Your task to perform on an android device: Search for vegetarian restaurants on Maps Image 0: 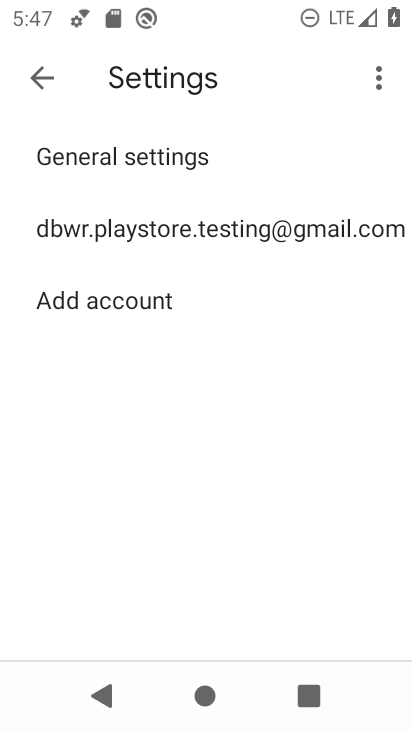
Step 0: click (245, 494)
Your task to perform on an android device: Search for vegetarian restaurants on Maps Image 1: 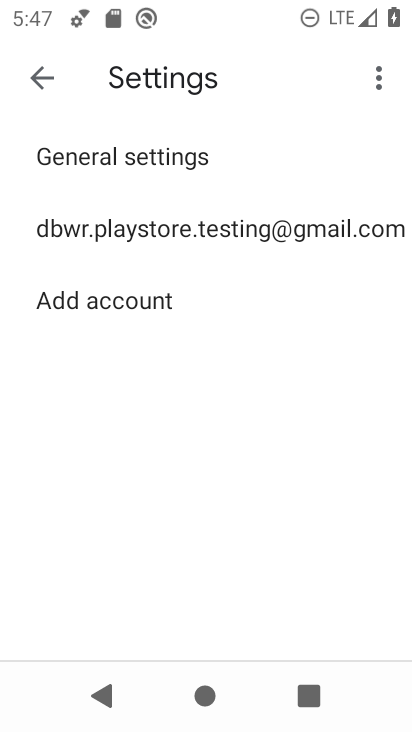
Step 1: press home button
Your task to perform on an android device: Search for vegetarian restaurants on Maps Image 2: 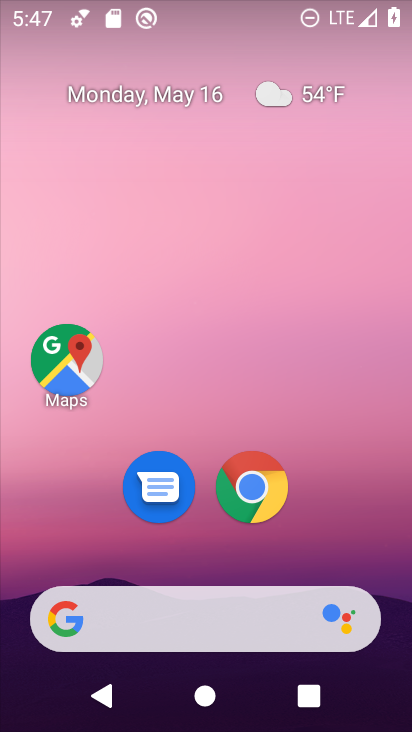
Step 2: click (89, 367)
Your task to perform on an android device: Search for vegetarian restaurants on Maps Image 3: 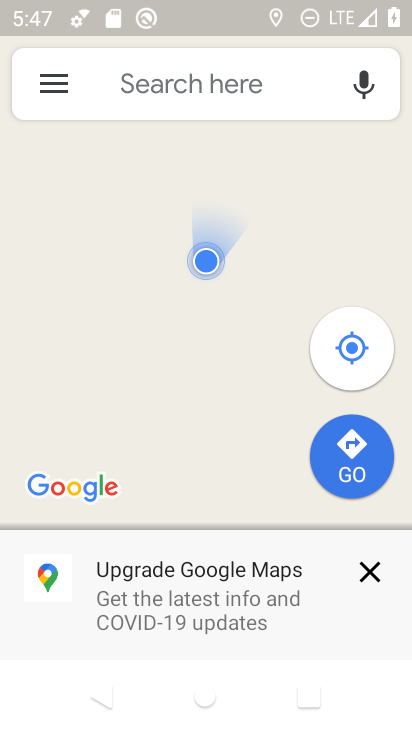
Step 3: click (175, 95)
Your task to perform on an android device: Search for vegetarian restaurants on Maps Image 4: 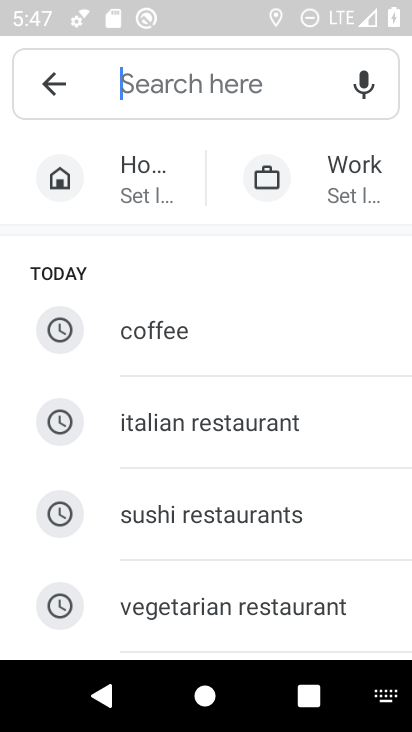
Step 4: click (221, 607)
Your task to perform on an android device: Search for vegetarian restaurants on Maps Image 5: 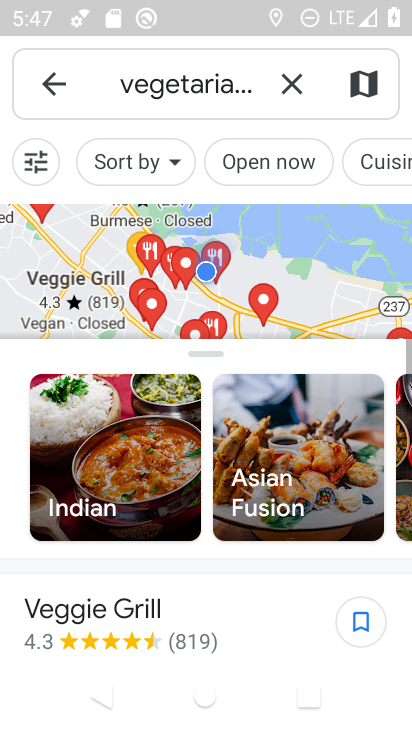
Step 5: task complete